Your task to perform on an android device: remove spam from my inbox in the gmail app Image 0: 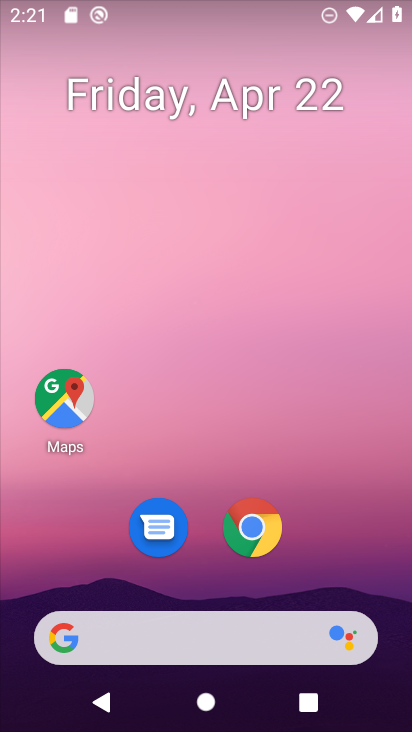
Step 0: drag from (310, 564) to (336, 128)
Your task to perform on an android device: remove spam from my inbox in the gmail app Image 1: 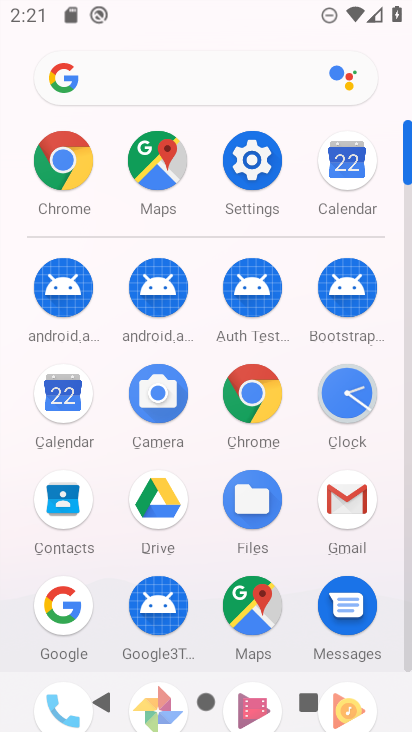
Step 1: drag from (197, 276) to (195, 8)
Your task to perform on an android device: remove spam from my inbox in the gmail app Image 2: 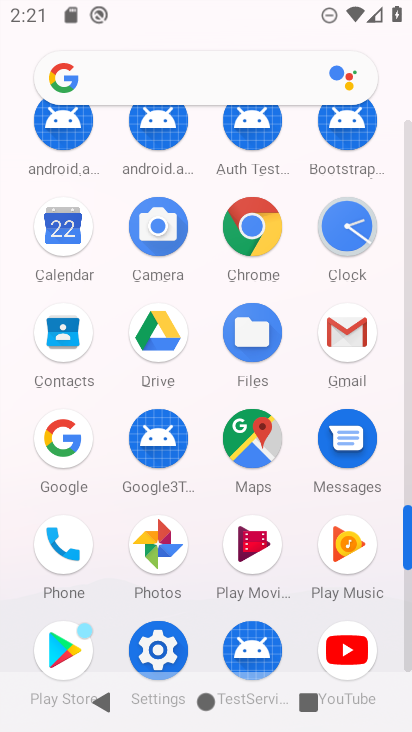
Step 2: click (340, 333)
Your task to perform on an android device: remove spam from my inbox in the gmail app Image 3: 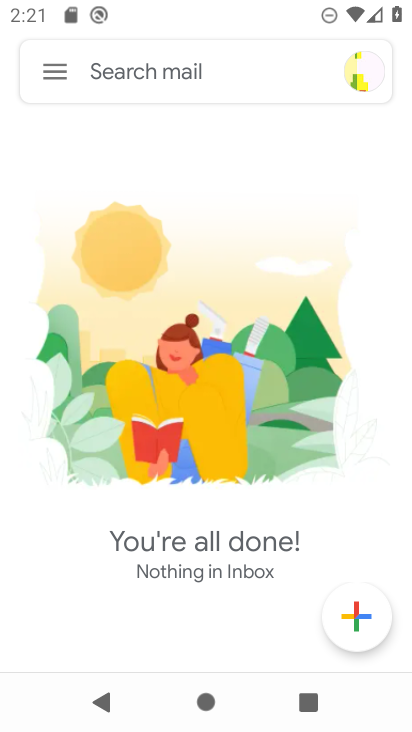
Step 3: click (48, 67)
Your task to perform on an android device: remove spam from my inbox in the gmail app Image 4: 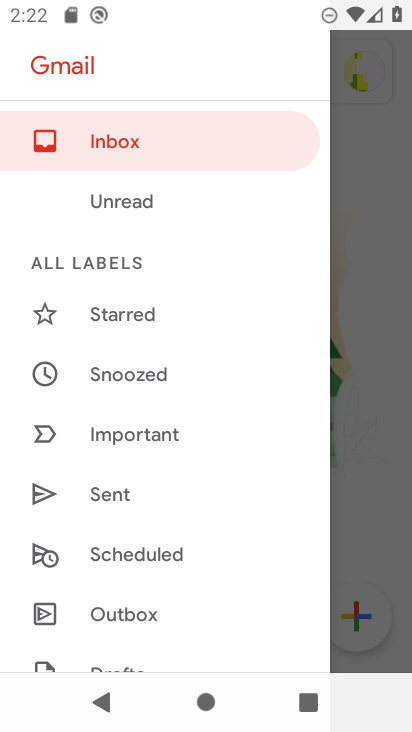
Step 4: drag from (264, 595) to (247, 238)
Your task to perform on an android device: remove spam from my inbox in the gmail app Image 5: 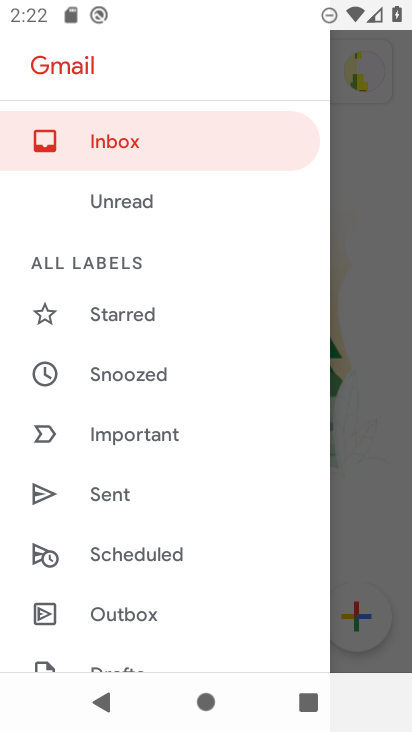
Step 5: drag from (229, 611) to (234, 201)
Your task to perform on an android device: remove spam from my inbox in the gmail app Image 6: 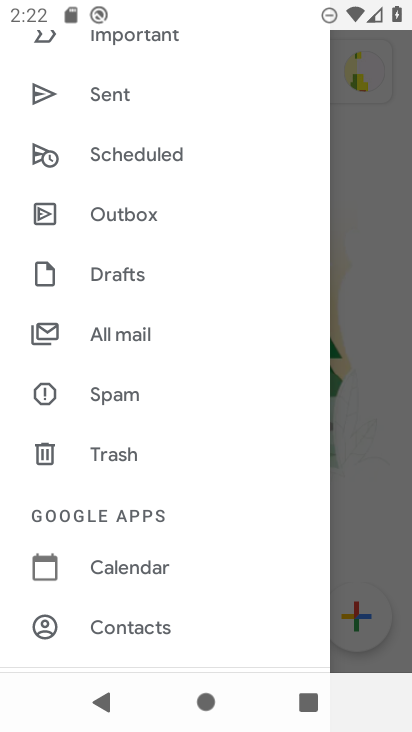
Step 6: click (117, 388)
Your task to perform on an android device: remove spam from my inbox in the gmail app Image 7: 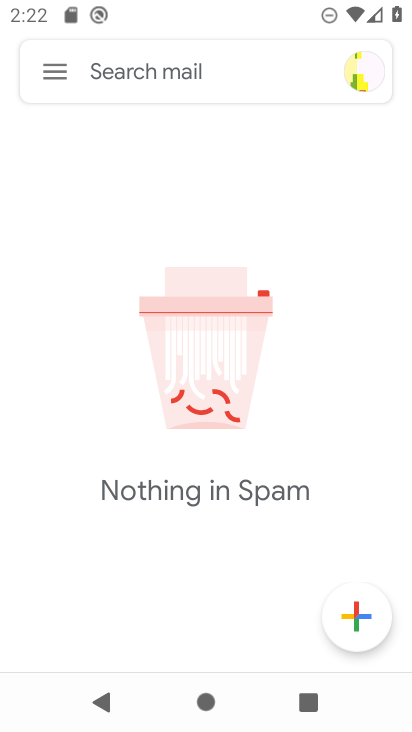
Step 7: task complete